Your task to perform on an android device: find which apps use the phone's location Image 0: 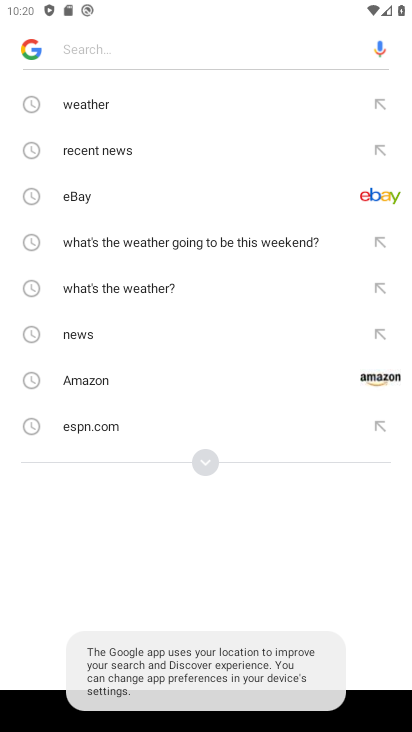
Step 0: press home button
Your task to perform on an android device: find which apps use the phone's location Image 1: 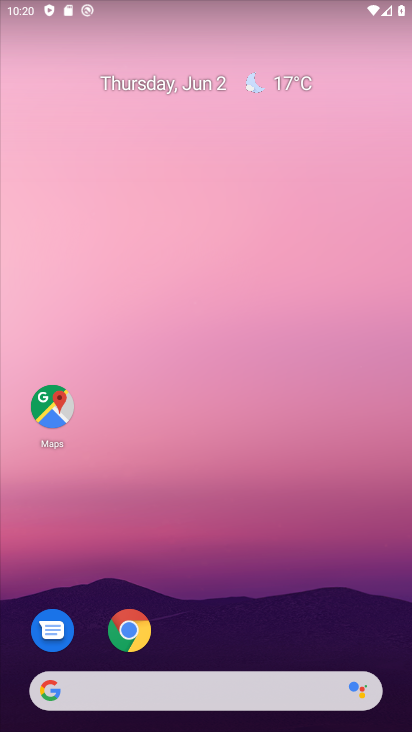
Step 1: drag from (196, 690) to (351, 47)
Your task to perform on an android device: find which apps use the phone's location Image 2: 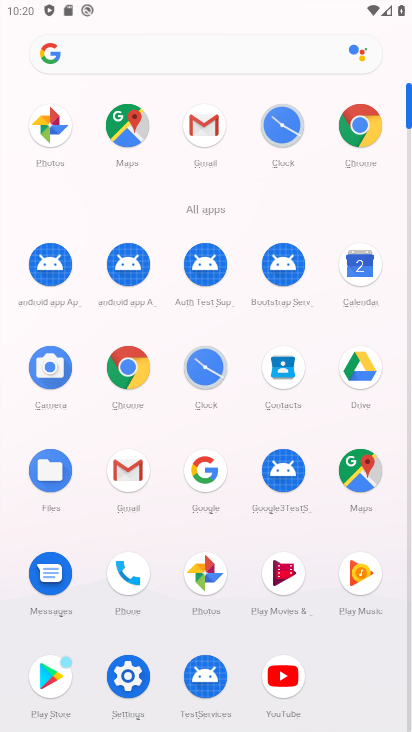
Step 2: click (129, 676)
Your task to perform on an android device: find which apps use the phone's location Image 3: 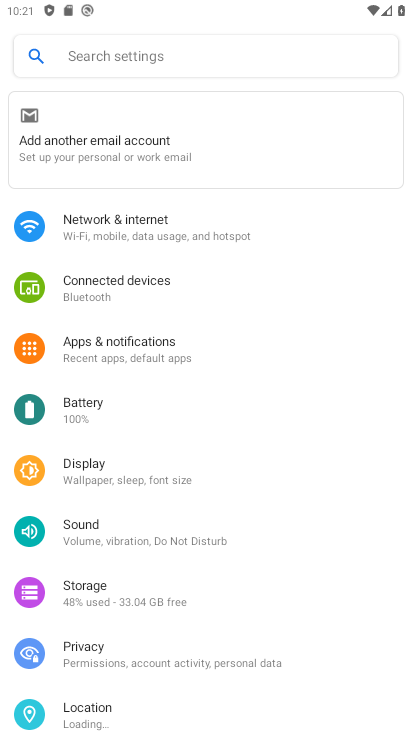
Step 3: drag from (275, 627) to (349, 36)
Your task to perform on an android device: find which apps use the phone's location Image 4: 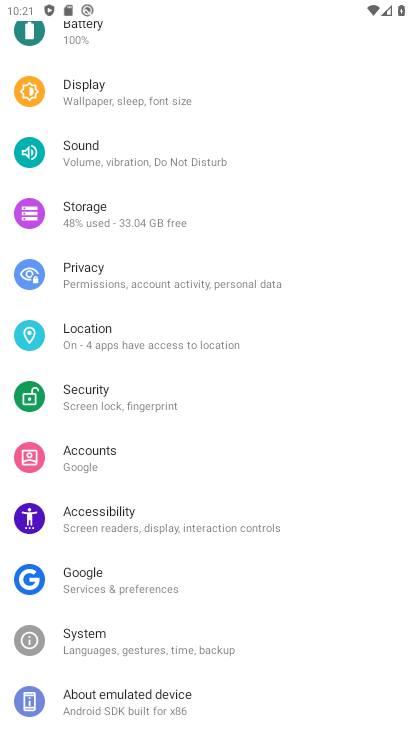
Step 4: click (142, 341)
Your task to perform on an android device: find which apps use the phone's location Image 5: 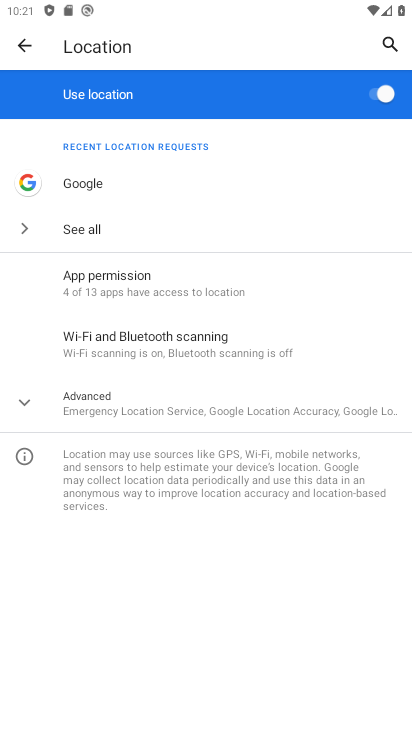
Step 5: click (129, 278)
Your task to perform on an android device: find which apps use the phone's location Image 6: 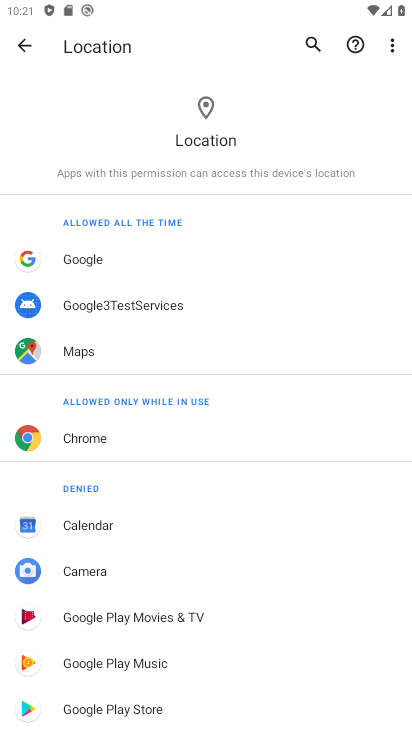
Step 6: drag from (229, 510) to (388, 179)
Your task to perform on an android device: find which apps use the phone's location Image 7: 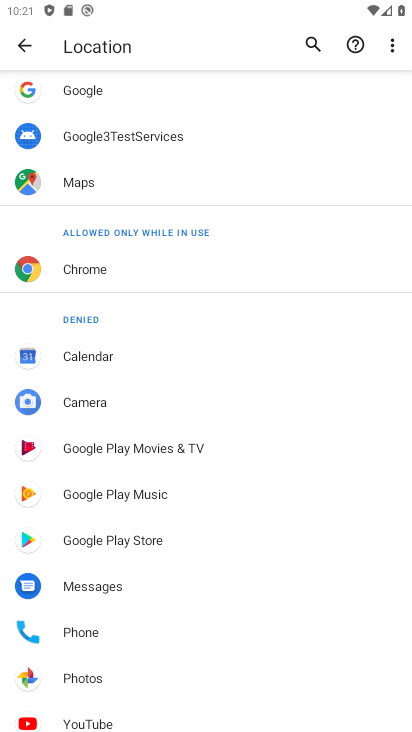
Step 7: click (89, 631)
Your task to perform on an android device: find which apps use the phone's location Image 8: 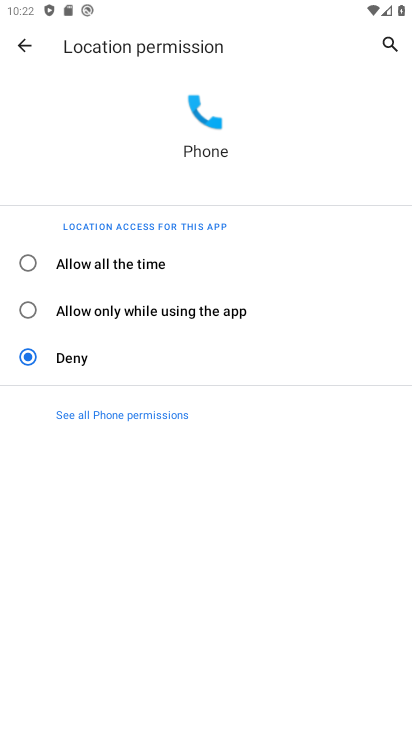
Step 8: task complete